Your task to perform on an android device: What's the weather? Image 0: 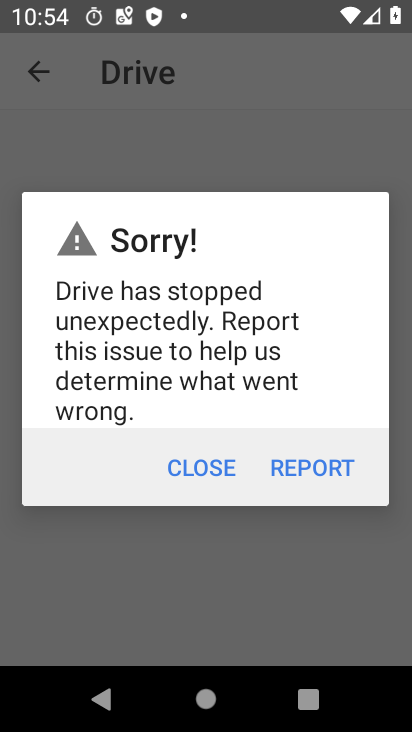
Step 0: press home button
Your task to perform on an android device: What's the weather? Image 1: 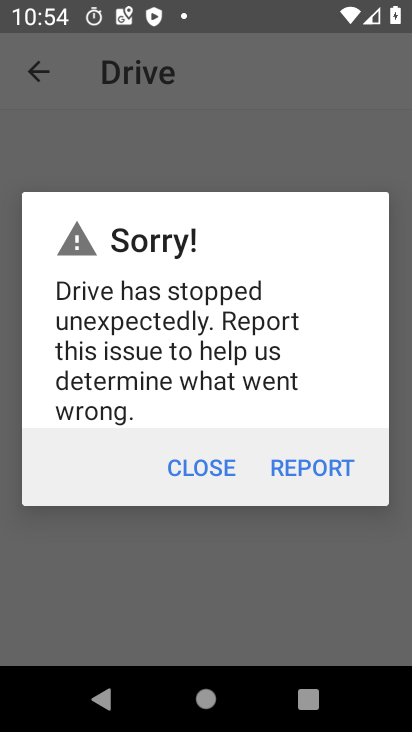
Step 1: press home button
Your task to perform on an android device: What's the weather? Image 2: 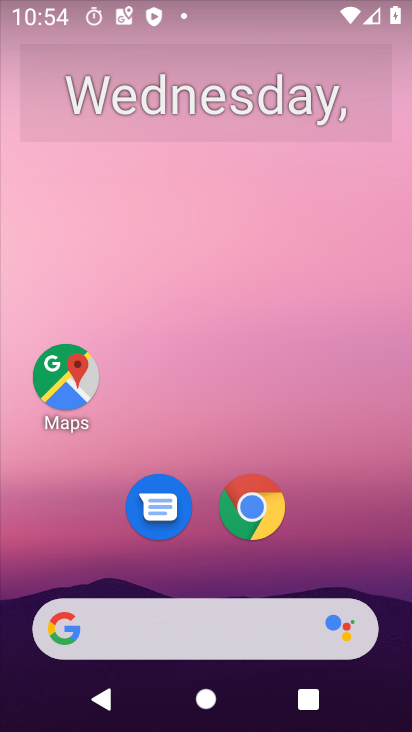
Step 2: drag from (235, 722) to (227, 58)
Your task to perform on an android device: What's the weather? Image 3: 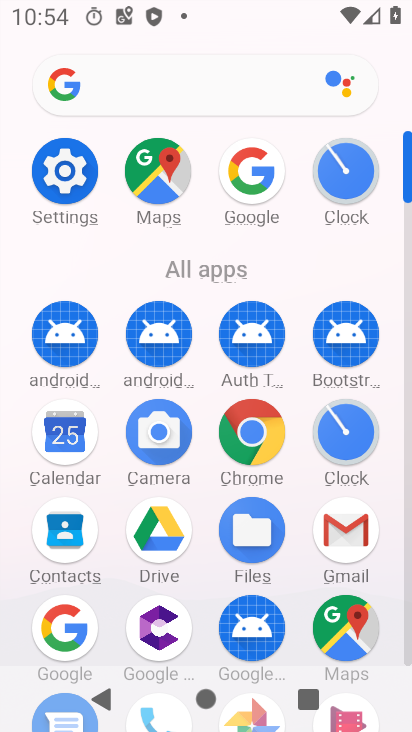
Step 3: click (48, 634)
Your task to perform on an android device: What's the weather? Image 4: 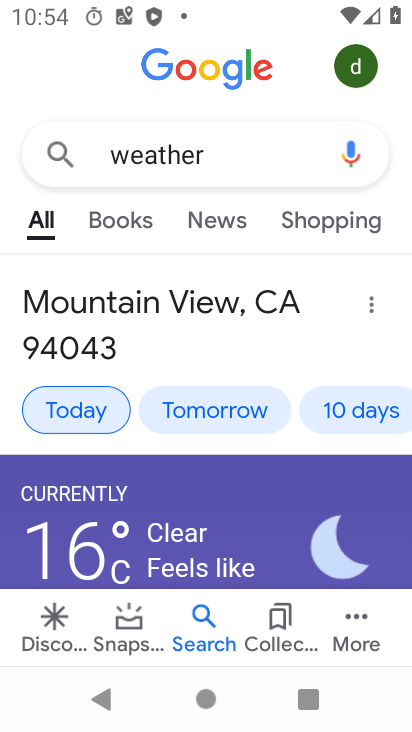
Step 4: click (72, 412)
Your task to perform on an android device: What's the weather? Image 5: 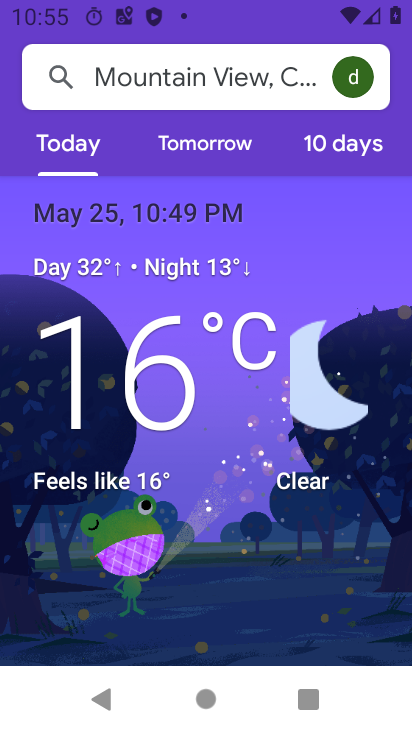
Step 5: task complete